Your task to perform on an android device: Is it going to rain this weekend? Image 0: 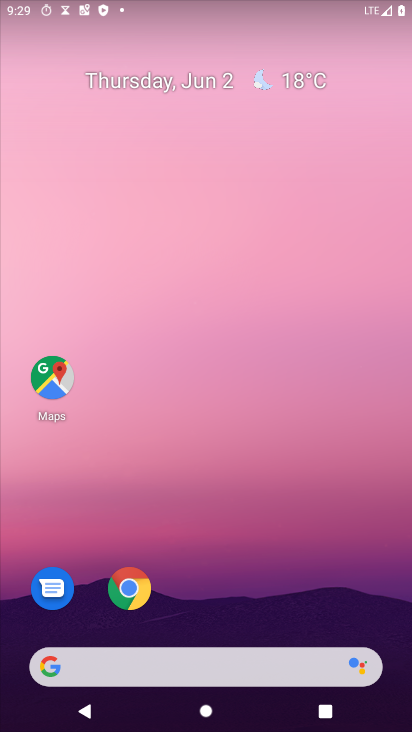
Step 0: click (270, 79)
Your task to perform on an android device: Is it going to rain this weekend? Image 1: 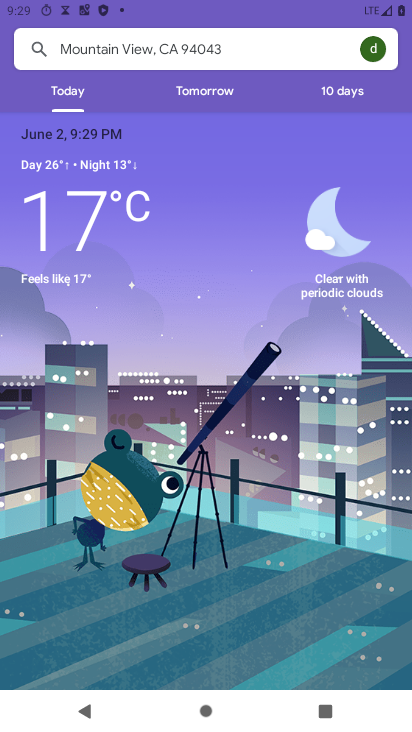
Step 1: click (342, 89)
Your task to perform on an android device: Is it going to rain this weekend? Image 2: 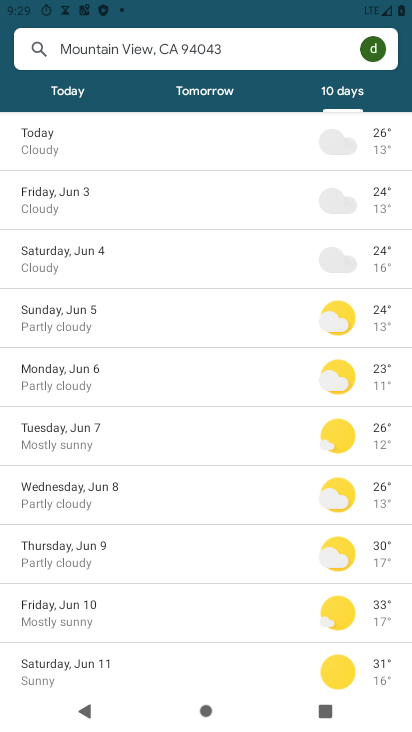
Step 2: task complete